Your task to perform on an android device: change alarm snooze length Image 0: 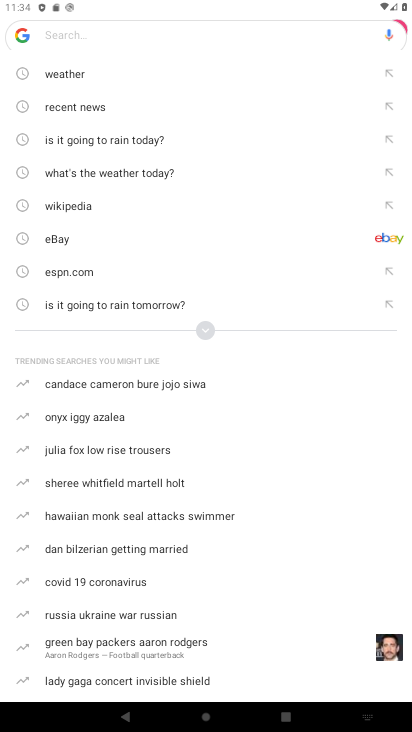
Step 0: press home button
Your task to perform on an android device: change alarm snooze length Image 1: 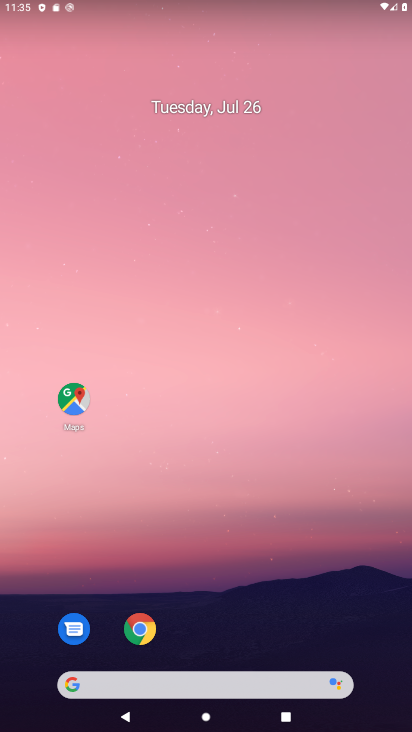
Step 1: drag from (221, 714) to (220, 306)
Your task to perform on an android device: change alarm snooze length Image 2: 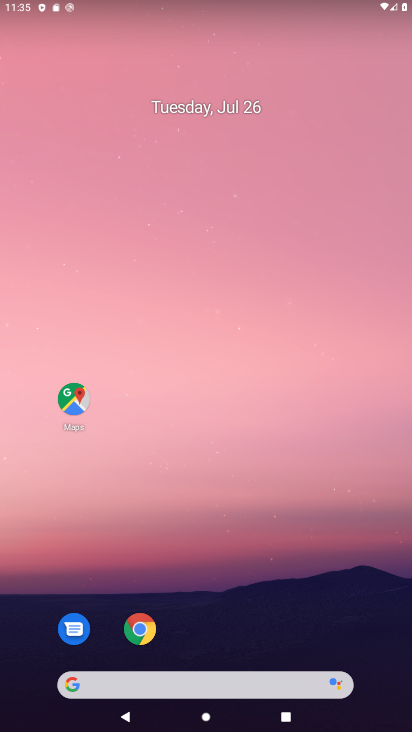
Step 2: drag from (228, 729) to (206, 101)
Your task to perform on an android device: change alarm snooze length Image 3: 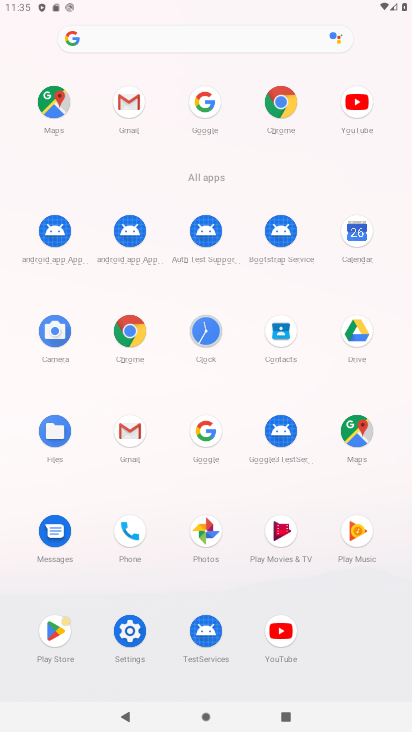
Step 3: click (206, 329)
Your task to perform on an android device: change alarm snooze length Image 4: 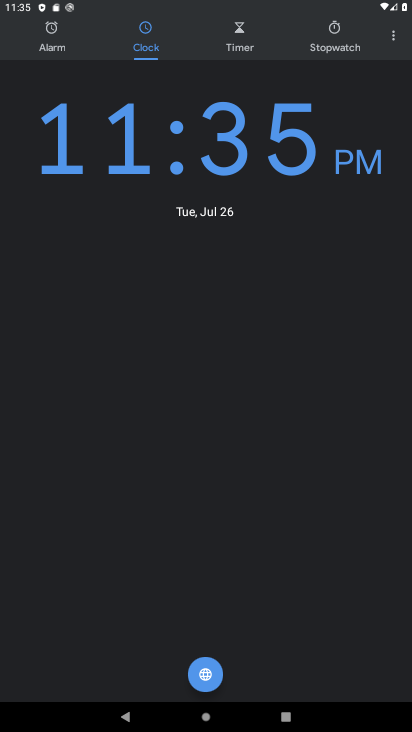
Step 4: click (395, 40)
Your task to perform on an android device: change alarm snooze length Image 5: 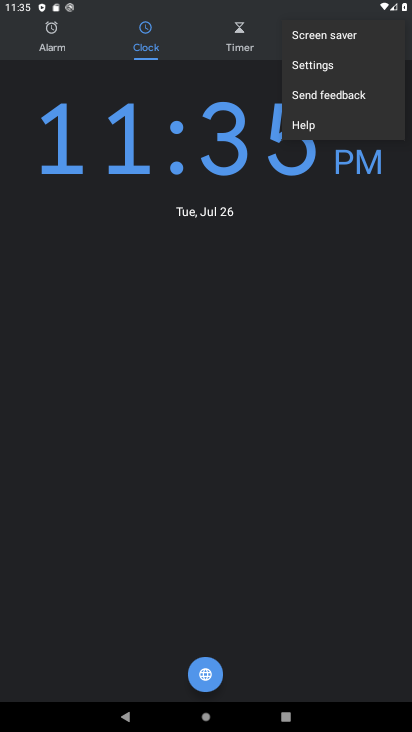
Step 5: click (317, 65)
Your task to perform on an android device: change alarm snooze length Image 6: 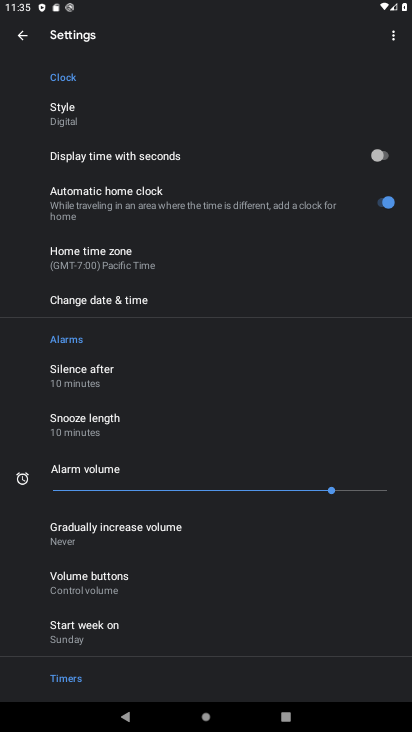
Step 6: click (109, 422)
Your task to perform on an android device: change alarm snooze length Image 7: 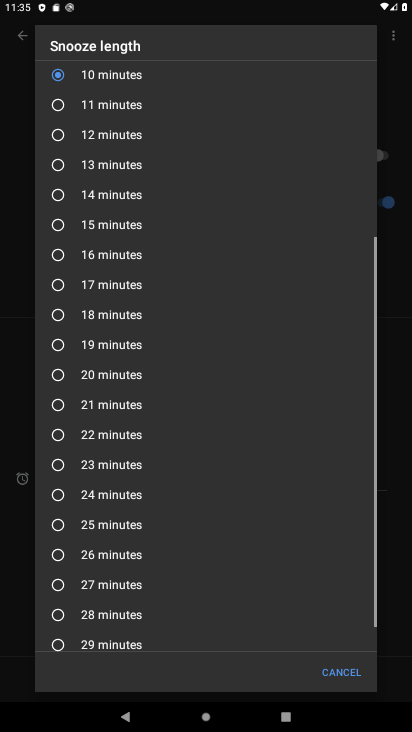
Step 7: click (60, 555)
Your task to perform on an android device: change alarm snooze length Image 8: 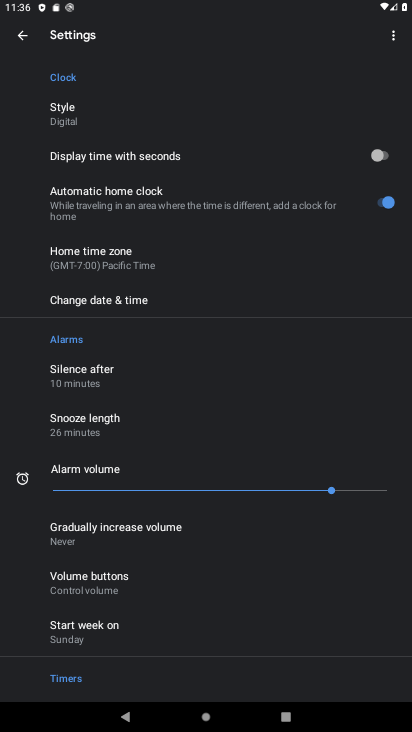
Step 8: task complete